Your task to perform on an android device: find which apps use the phone's location Image 0: 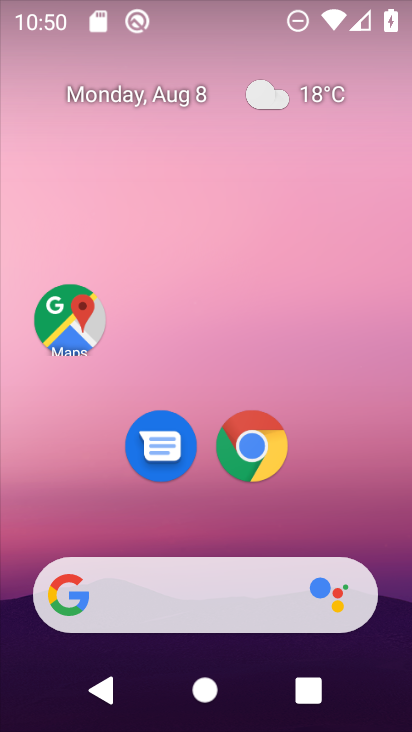
Step 0: drag from (401, 615) to (389, 78)
Your task to perform on an android device: find which apps use the phone's location Image 1: 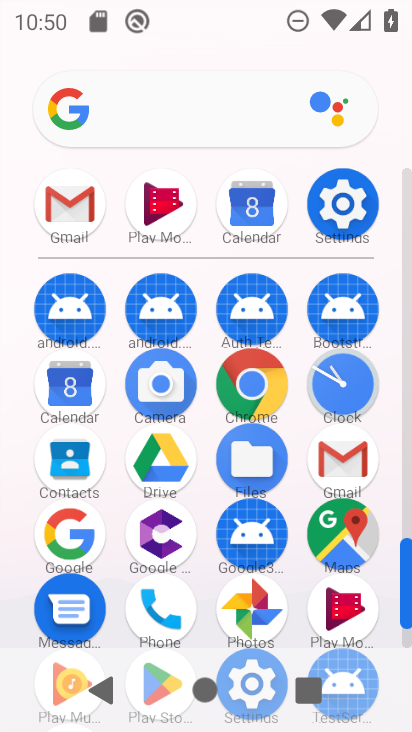
Step 1: click (406, 642)
Your task to perform on an android device: find which apps use the phone's location Image 2: 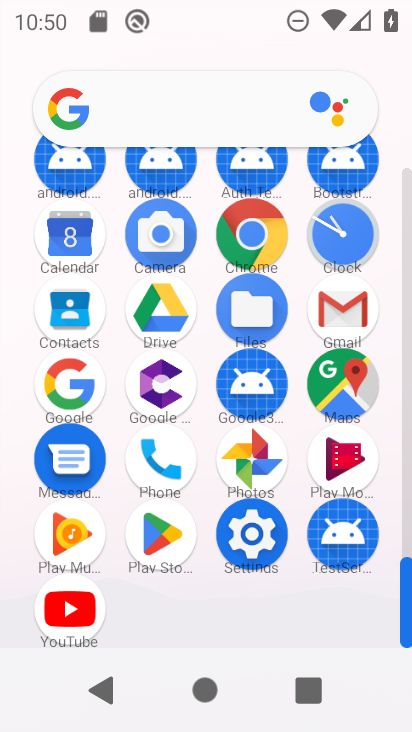
Step 2: click (250, 532)
Your task to perform on an android device: find which apps use the phone's location Image 3: 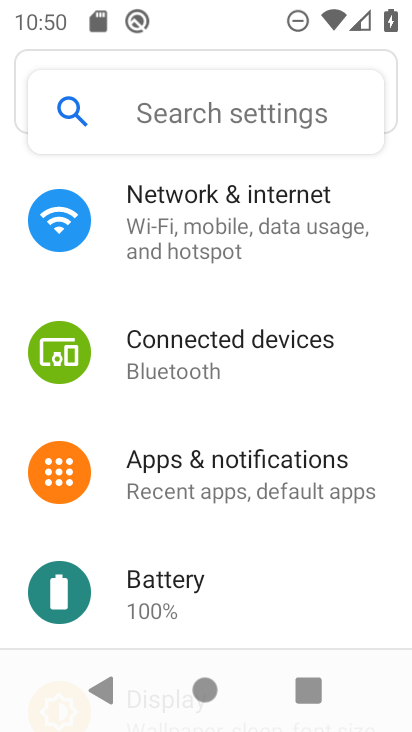
Step 3: drag from (327, 607) to (320, 163)
Your task to perform on an android device: find which apps use the phone's location Image 4: 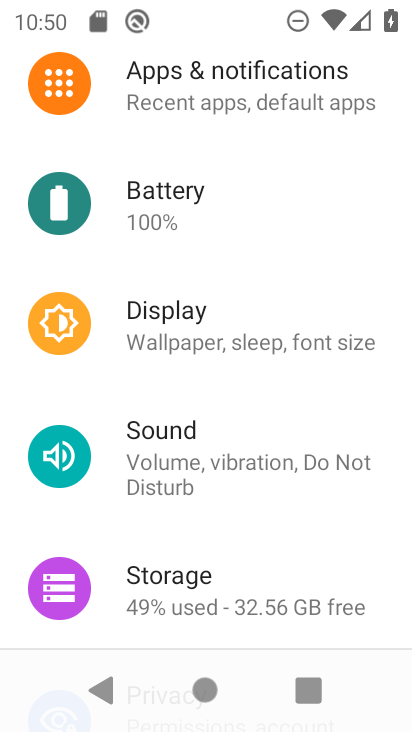
Step 4: drag from (320, 521) to (304, 123)
Your task to perform on an android device: find which apps use the phone's location Image 5: 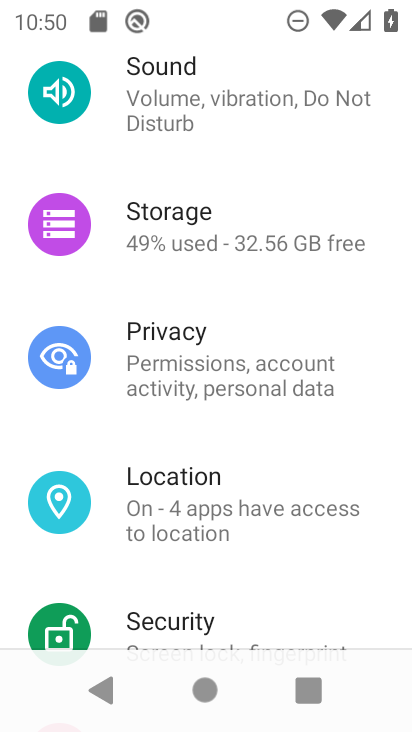
Step 5: click (177, 521)
Your task to perform on an android device: find which apps use the phone's location Image 6: 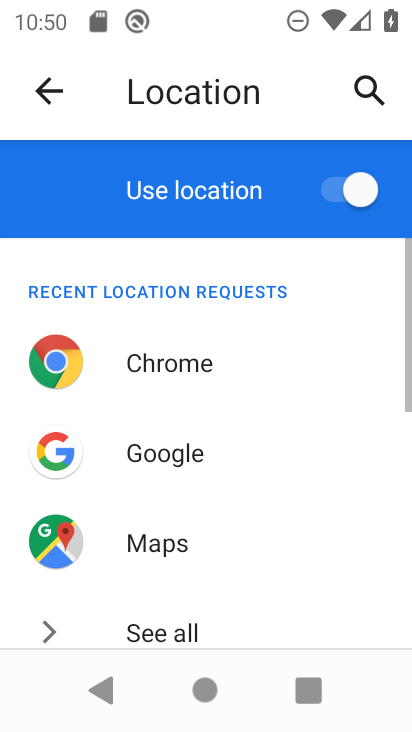
Step 6: drag from (239, 600) to (255, 359)
Your task to perform on an android device: find which apps use the phone's location Image 7: 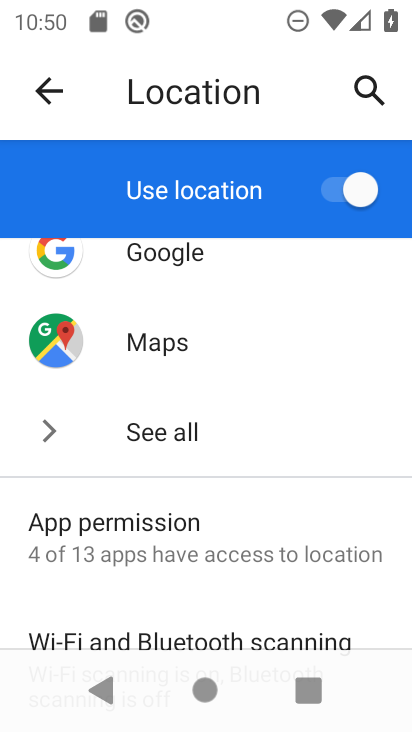
Step 7: click (140, 517)
Your task to perform on an android device: find which apps use the phone's location Image 8: 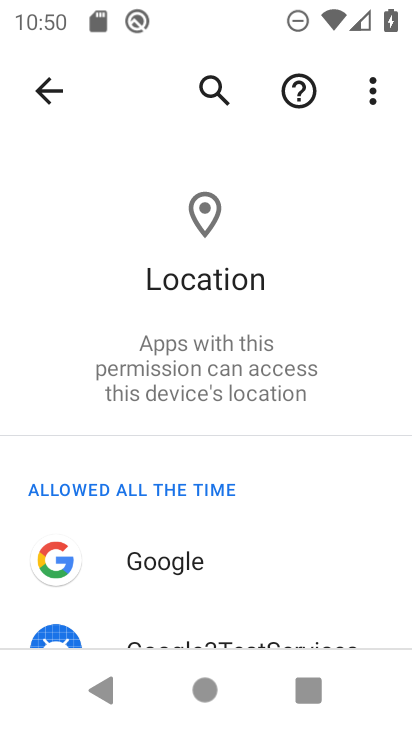
Step 8: task complete